Your task to perform on an android device: toggle pop-ups in chrome Image 0: 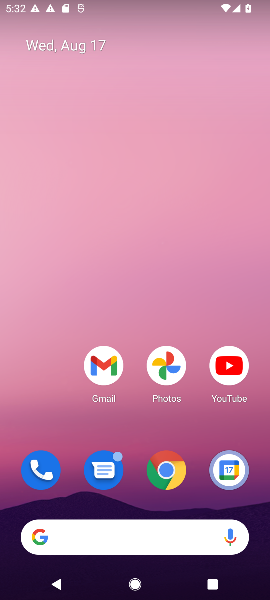
Step 0: click (167, 466)
Your task to perform on an android device: toggle pop-ups in chrome Image 1: 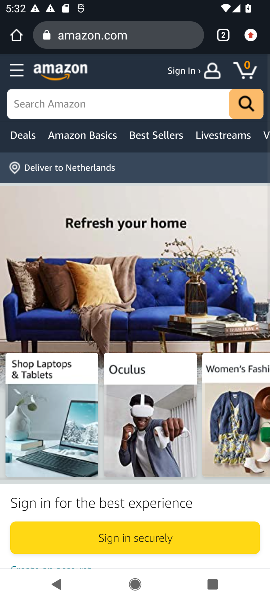
Step 1: click (252, 40)
Your task to perform on an android device: toggle pop-ups in chrome Image 2: 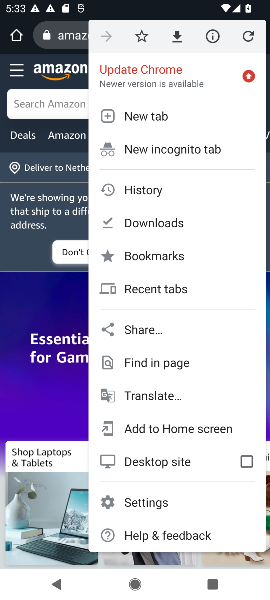
Step 2: click (144, 505)
Your task to perform on an android device: toggle pop-ups in chrome Image 3: 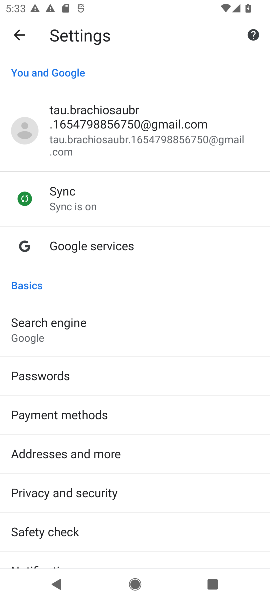
Step 3: drag from (64, 506) to (78, 76)
Your task to perform on an android device: toggle pop-ups in chrome Image 4: 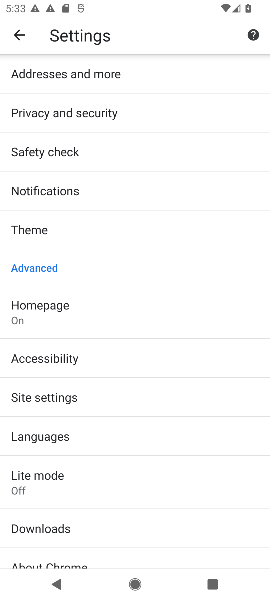
Step 4: click (66, 398)
Your task to perform on an android device: toggle pop-ups in chrome Image 5: 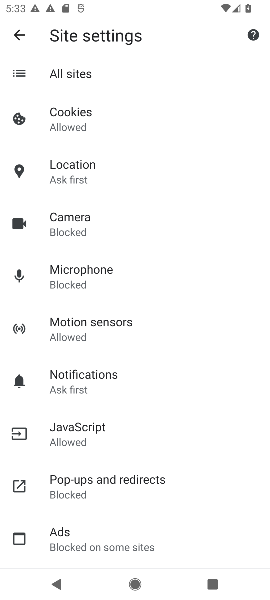
Step 5: click (82, 483)
Your task to perform on an android device: toggle pop-ups in chrome Image 6: 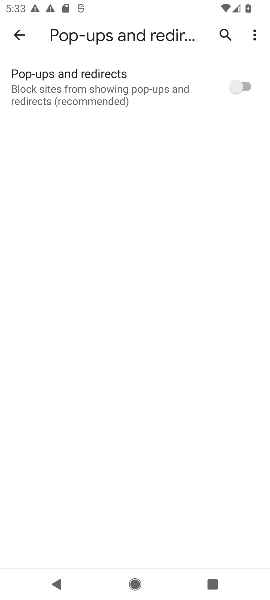
Step 6: click (240, 81)
Your task to perform on an android device: toggle pop-ups in chrome Image 7: 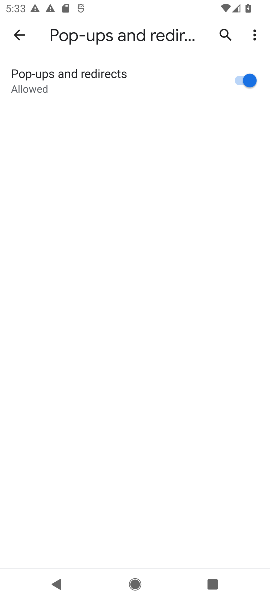
Step 7: task complete